Your task to perform on an android device: turn on translation in the chrome app Image 0: 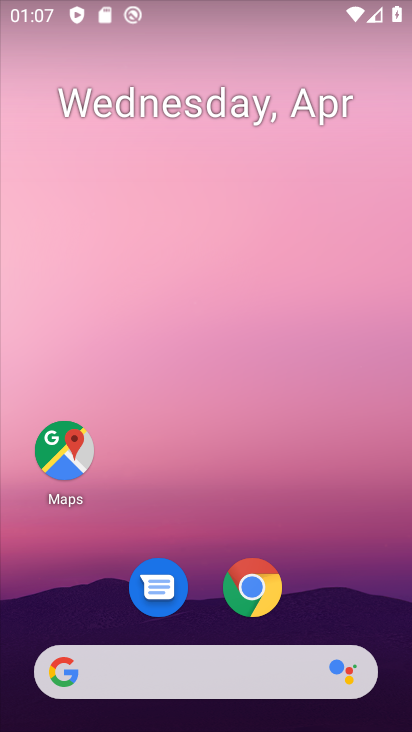
Step 0: click (247, 598)
Your task to perform on an android device: turn on translation in the chrome app Image 1: 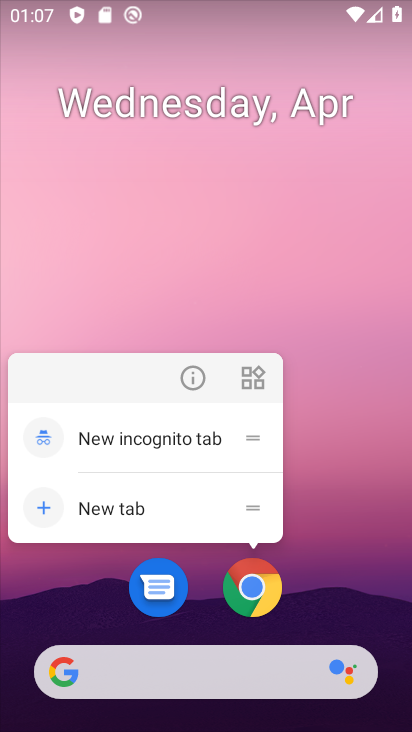
Step 1: click (247, 598)
Your task to perform on an android device: turn on translation in the chrome app Image 2: 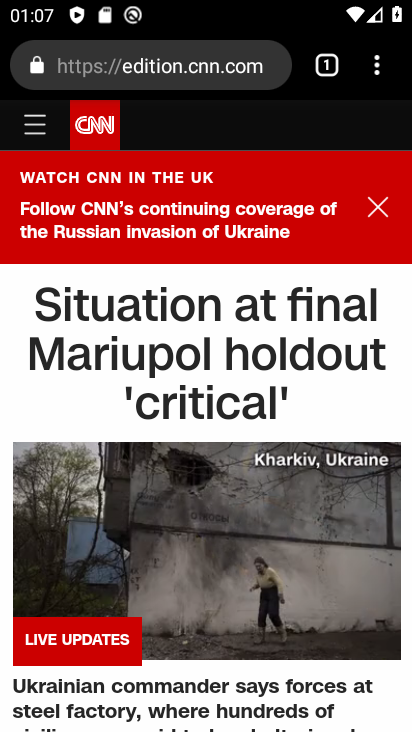
Step 2: click (374, 63)
Your task to perform on an android device: turn on translation in the chrome app Image 3: 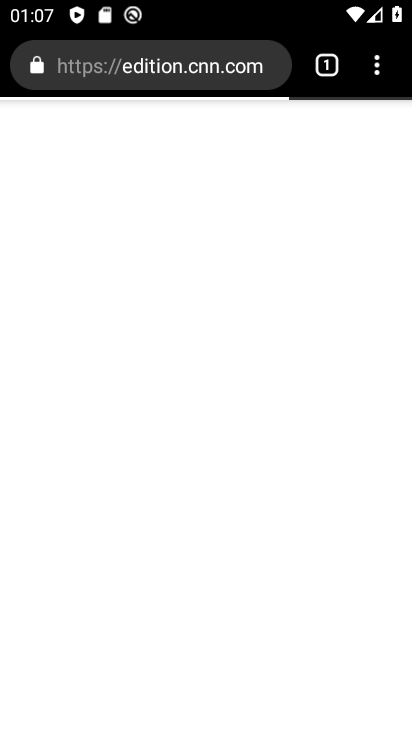
Step 3: click (384, 59)
Your task to perform on an android device: turn on translation in the chrome app Image 4: 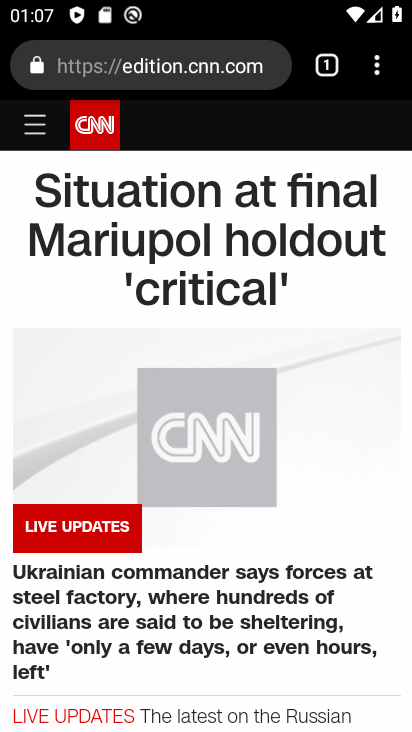
Step 4: click (375, 70)
Your task to perform on an android device: turn on translation in the chrome app Image 5: 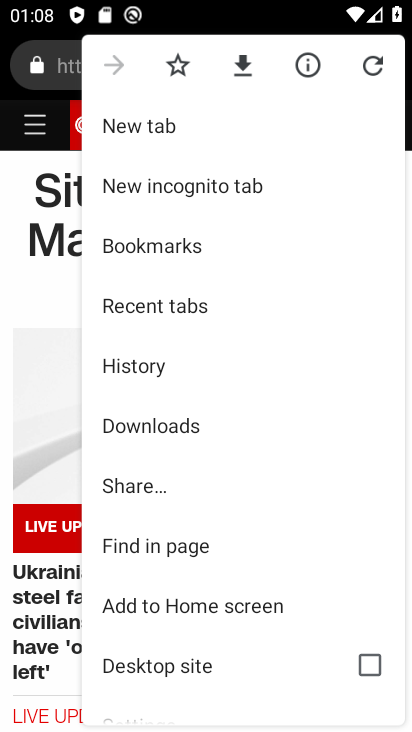
Step 5: drag from (289, 580) to (275, 174)
Your task to perform on an android device: turn on translation in the chrome app Image 6: 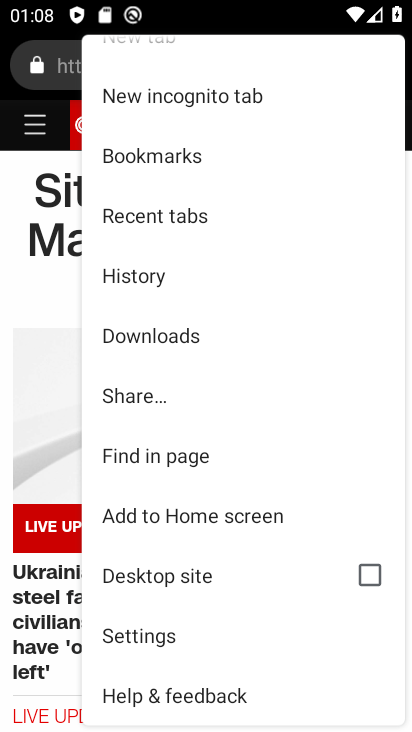
Step 6: click (155, 636)
Your task to perform on an android device: turn on translation in the chrome app Image 7: 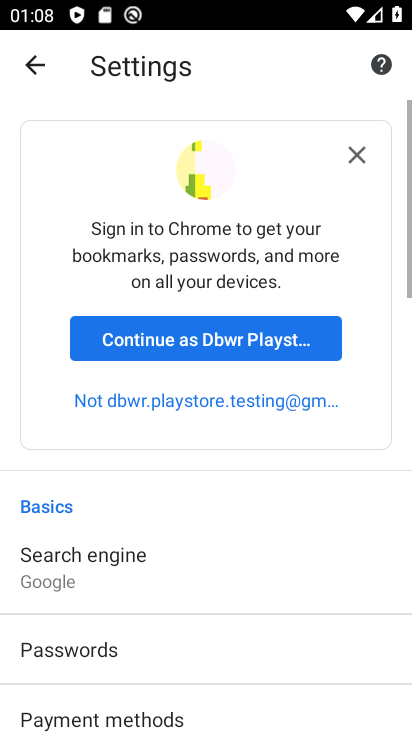
Step 7: drag from (224, 607) to (225, 204)
Your task to perform on an android device: turn on translation in the chrome app Image 8: 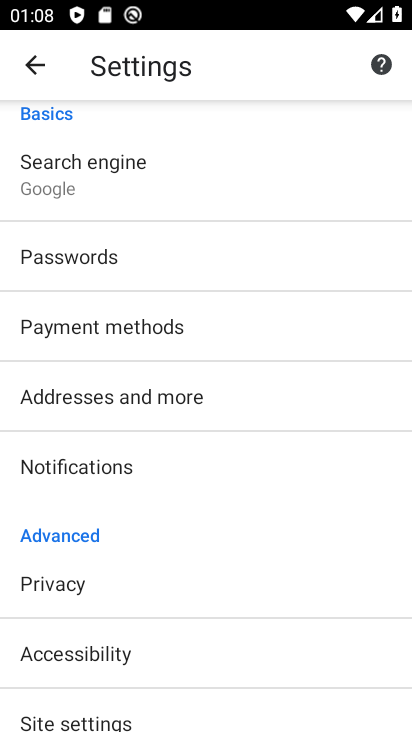
Step 8: drag from (170, 618) to (170, 409)
Your task to perform on an android device: turn on translation in the chrome app Image 9: 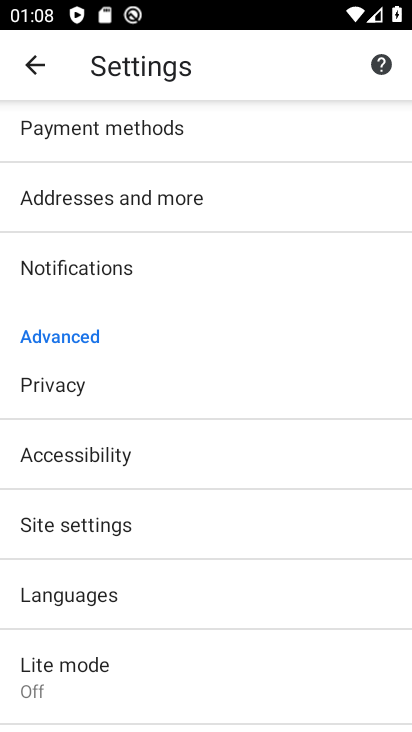
Step 9: click (92, 600)
Your task to perform on an android device: turn on translation in the chrome app Image 10: 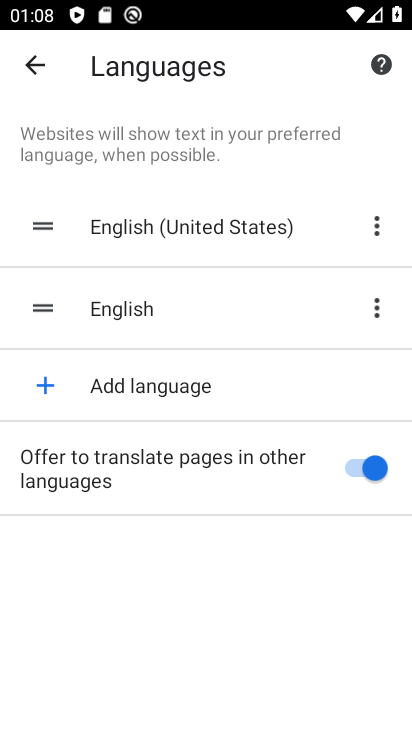
Step 10: task complete